Your task to perform on an android device: Open internet settings Image 0: 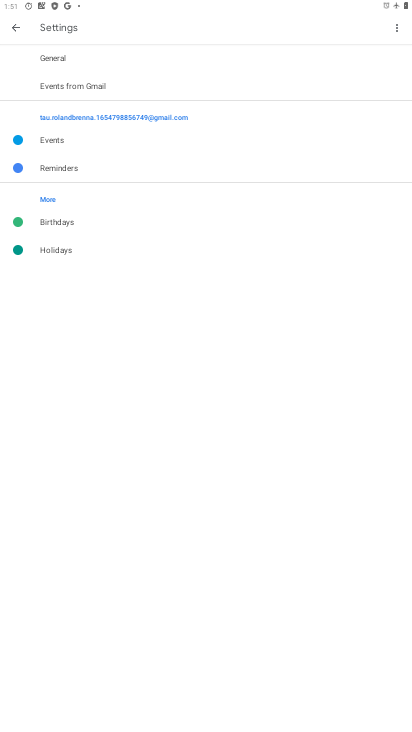
Step 0: press home button
Your task to perform on an android device: Open internet settings Image 1: 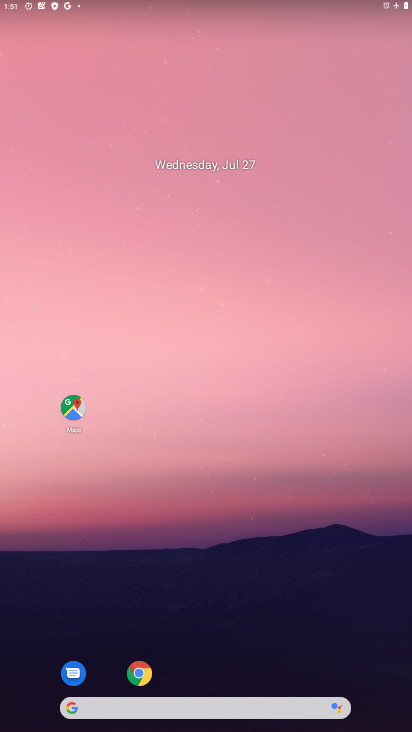
Step 1: drag from (223, 641) to (210, 44)
Your task to perform on an android device: Open internet settings Image 2: 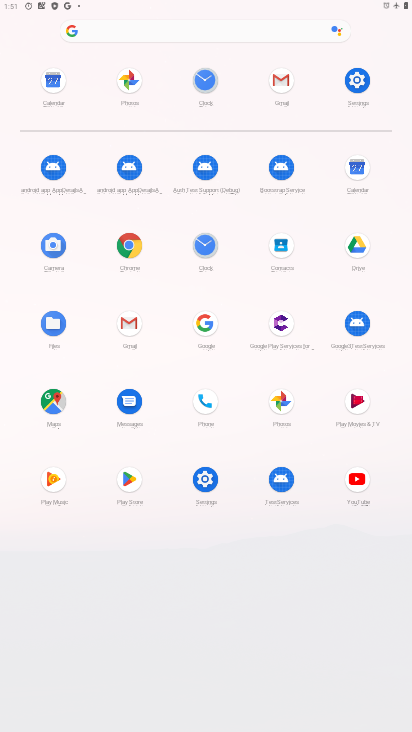
Step 2: click (351, 78)
Your task to perform on an android device: Open internet settings Image 3: 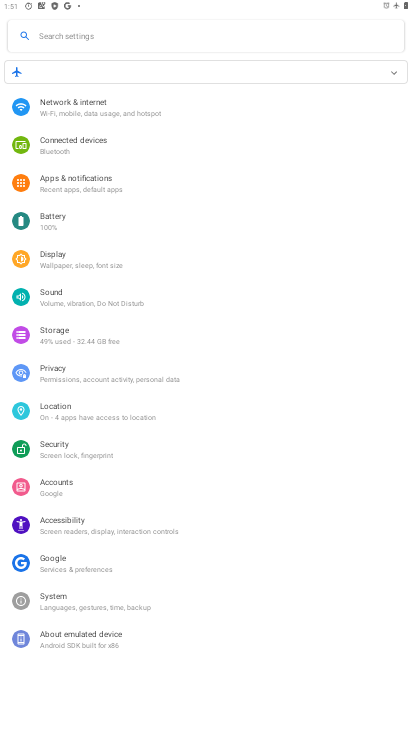
Step 3: click (80, 112)
Your task to perform on an android device: Open internet settings Image 4: 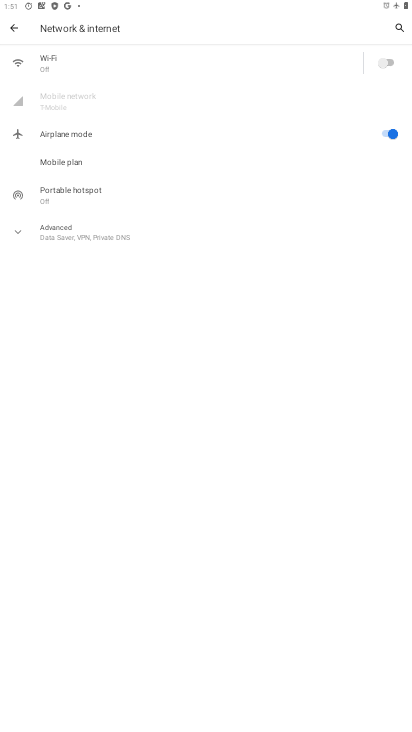
Step 4: click (17, 236)
Your task to perform on an android device: Open internet settings Image 5: 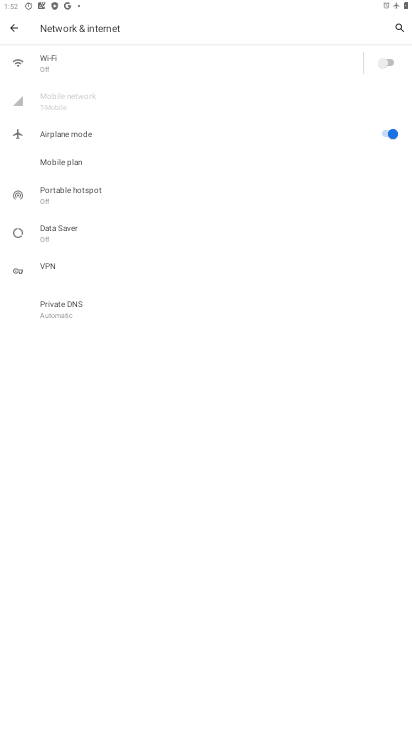
Step 5: task complete